Your task to perform on an android device: toggle show notifications on the lock screen Image 0: 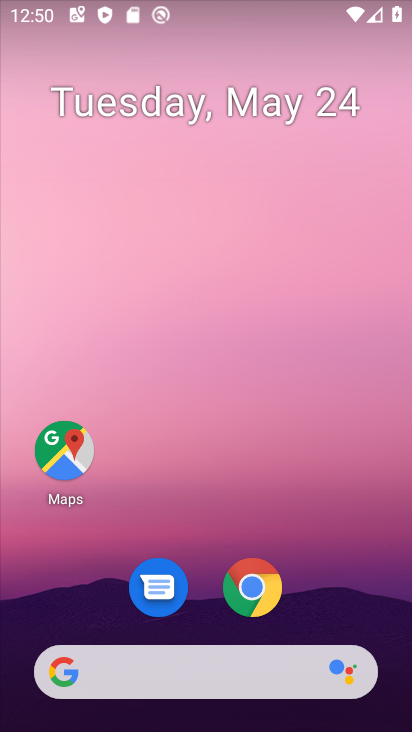
Step 0: drag from (371, 566) to (337, 96)
Your task to perform on an android device: toggle show notifications on the lock screen Image 1: 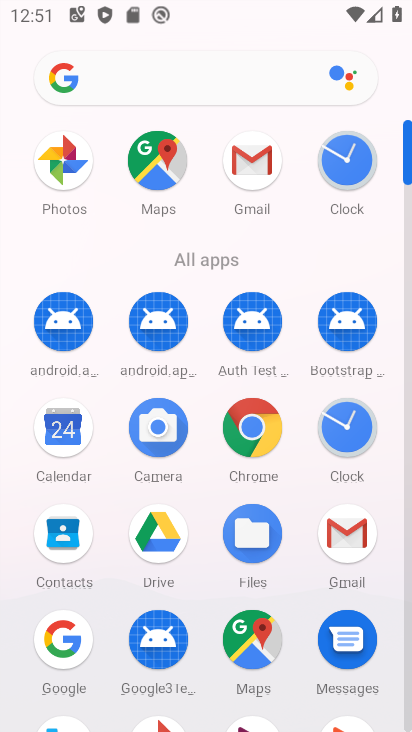
Step 1: click (409, 720)
Your task to perform on an android device: toggle show notifications on the lock screen Image 2: 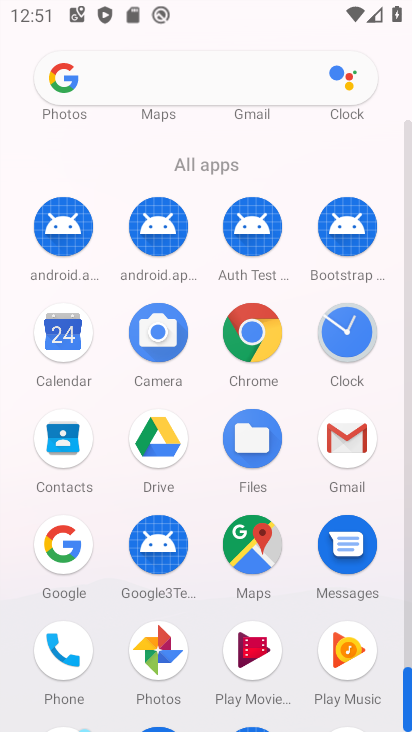
Step 2: drag from (405, 703) to (289, 722)
Your task to perform on an android device: toggle show notifications on the lock screen Image 3: 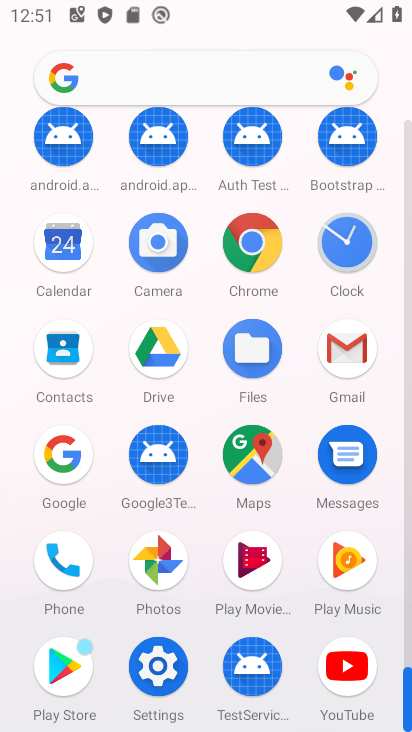
Step 3: click (160, 654)
Your task to perform on an android device: toggle show notifications on the lock screen Image 4: 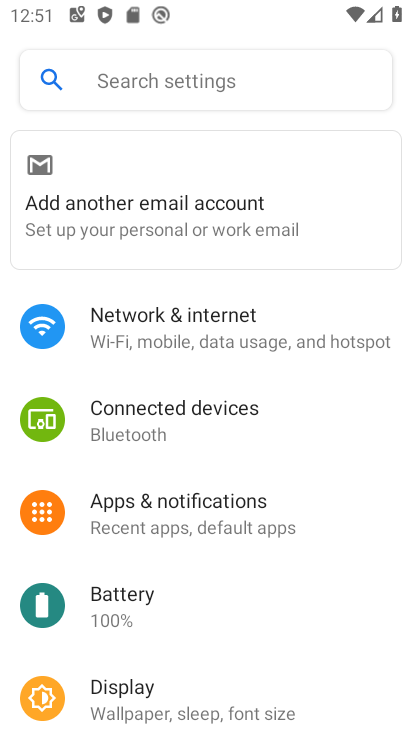
Step 4: drag from (232, 663) to (231, 462)
Your task to perform on an android device: toggle show notifications on the lock screen Image 5: 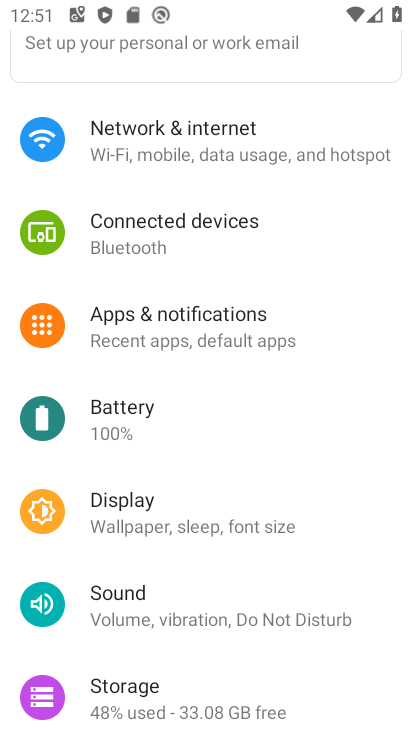
Step 5: click (228, 336)
Your task to perform on an android device: toggle show notifications on the lock screen Image 6: 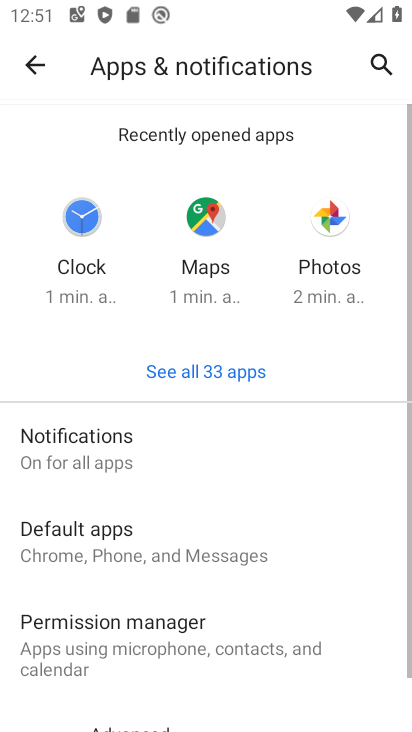
Step 6: drag from (259, 552) to (256, 229)
Your task to perform on an android device: toggle show notifications on the lock screen Image 7: 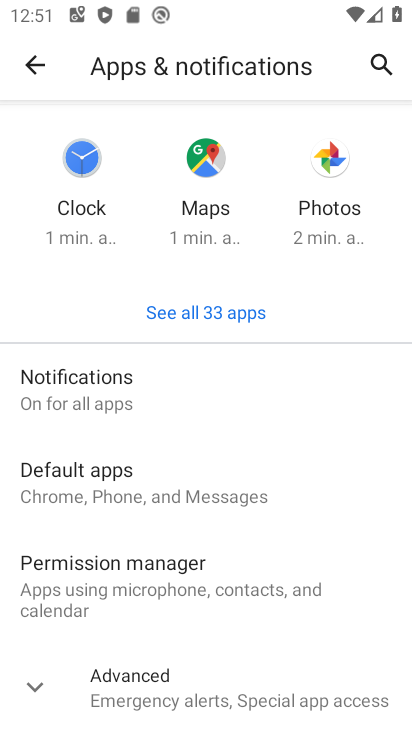
Step 7: click (196, 386)
Your task to perform on an android device: toggle show notifications on the lock screen Image 8: 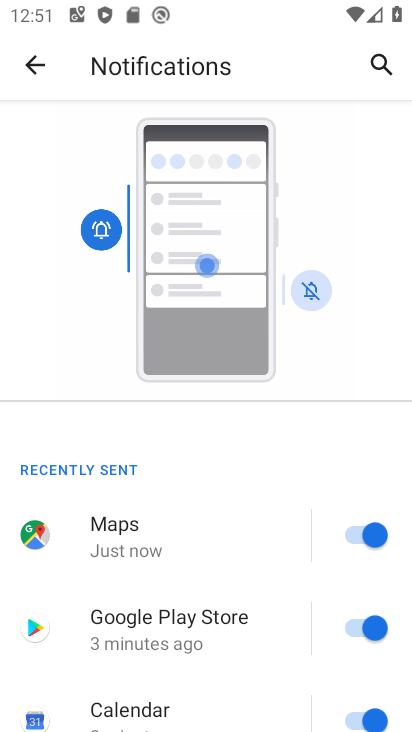
Step 8: drag from (191, 563) to (190, 418)
Your task to perform on an android device: toggle show notifications on the lock screen Image 9: 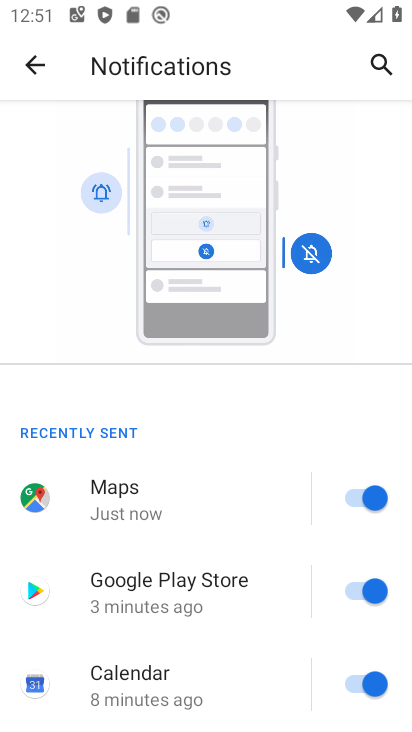
Step 9: drag from (192, 610) to (199, 16)
Your task to perform on an android device: toggle show notifications on the lock screen Image 10: 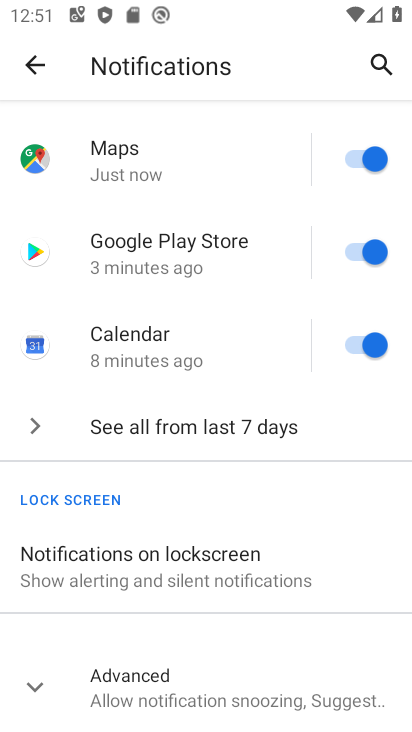
Step 10: click (175, 589)
Your task to perform on an android device: toggle show notifications on the lock screen Image 11: 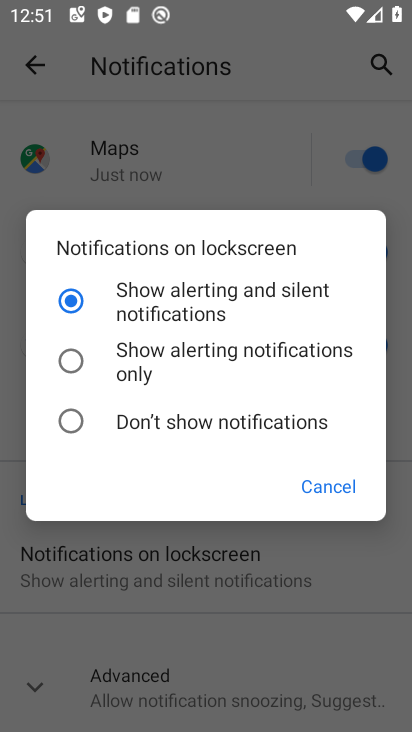
Step 11: click (148, 340)
Your task to perform on an android device: toggle show notifications on the lock screen Image 12: 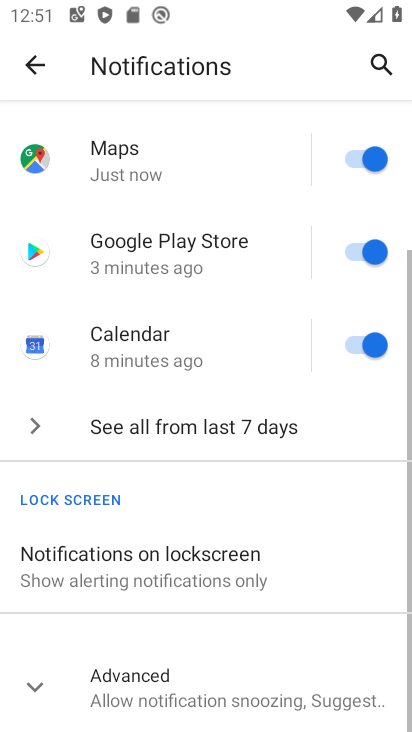
Step 12: task complete